Your task to perform on an android device: Open settings on Google Maps Image 0: 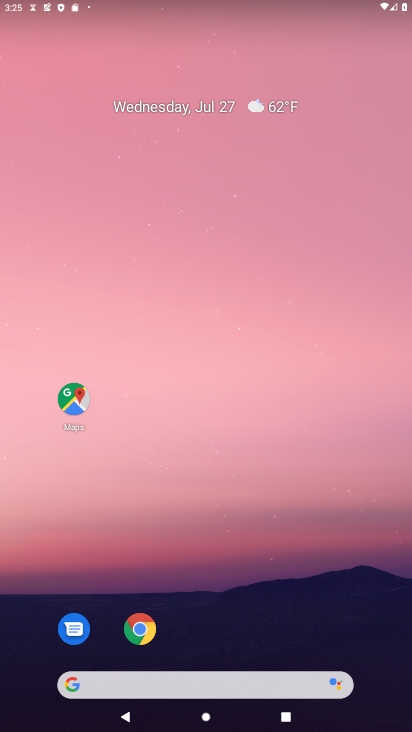
Step 0: click (73, 401)
Your task to perform on an android device: Open settings on Google Maps Image 1: 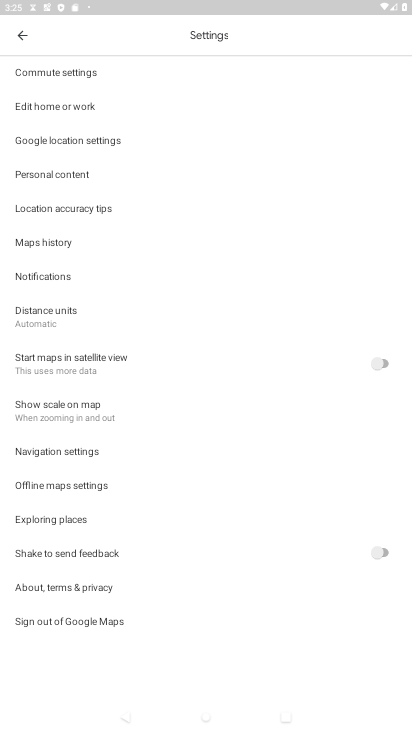
Step 1: task complete